Your task to perform on an android device: What's the news in the Philippines? Image 0: 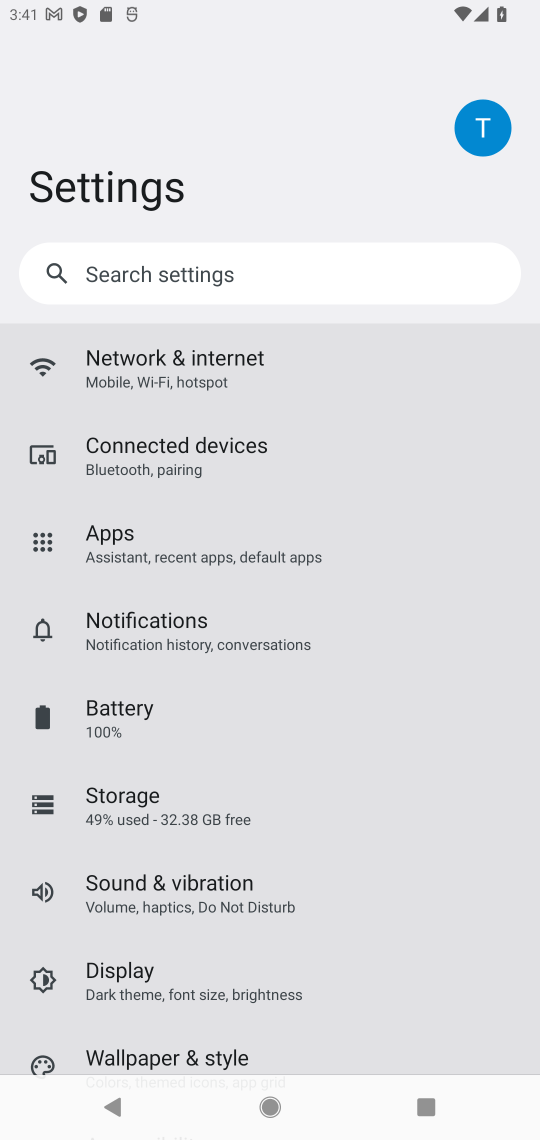
Step 0: press home button
Your task to perform on an android device: What's the news in the Philippines? Image 1: 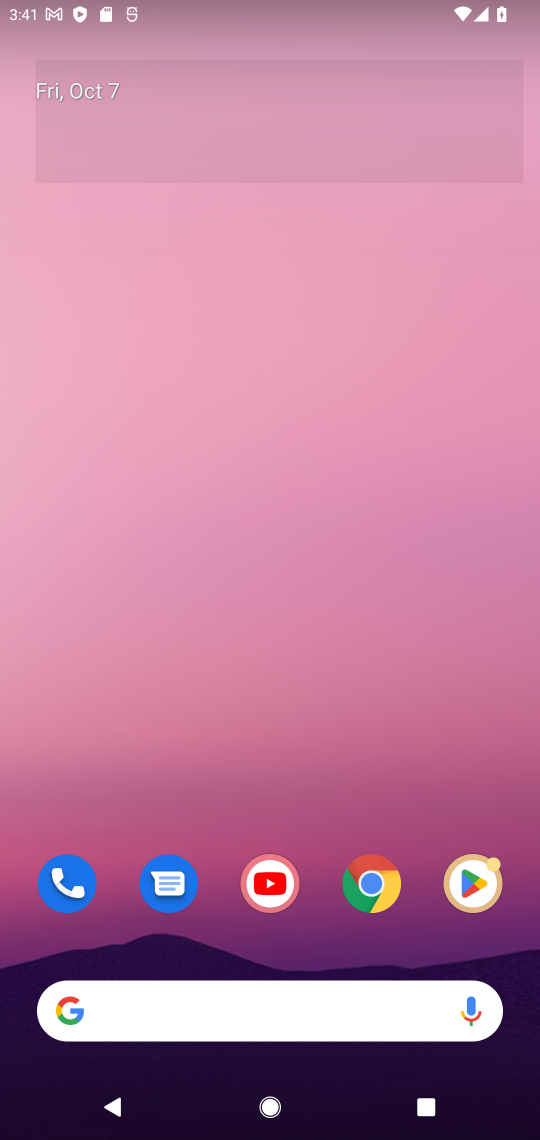
Step 1: drag from (346, 993) to (236, 217)
Your task to perform on an android device: What's the news in the Philippines? Image 2: 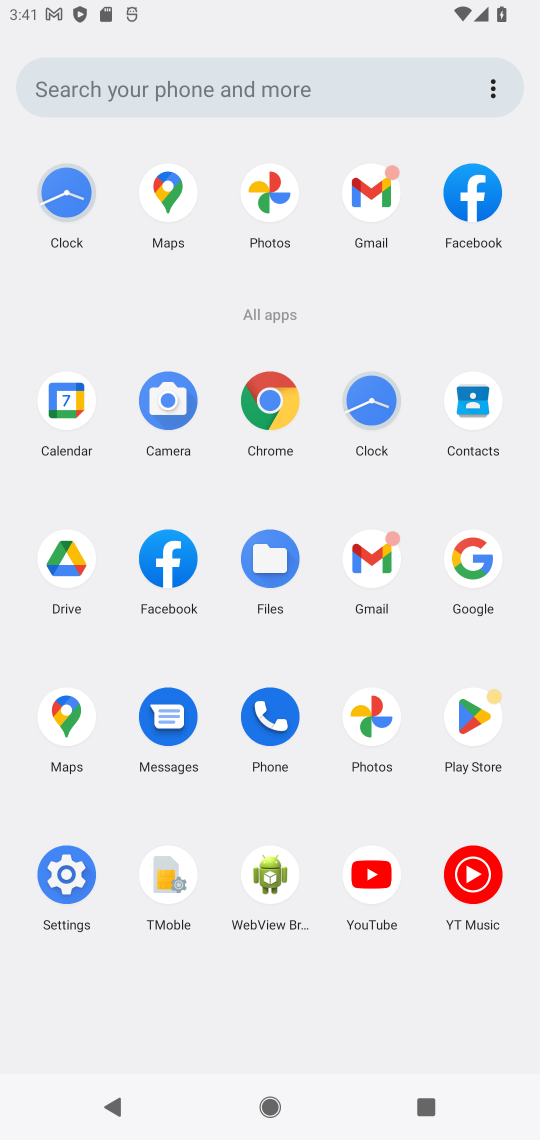
Step 2: click (283, 414)
Your task to perform on an android device: What's the news in the Philippines? Image 3: 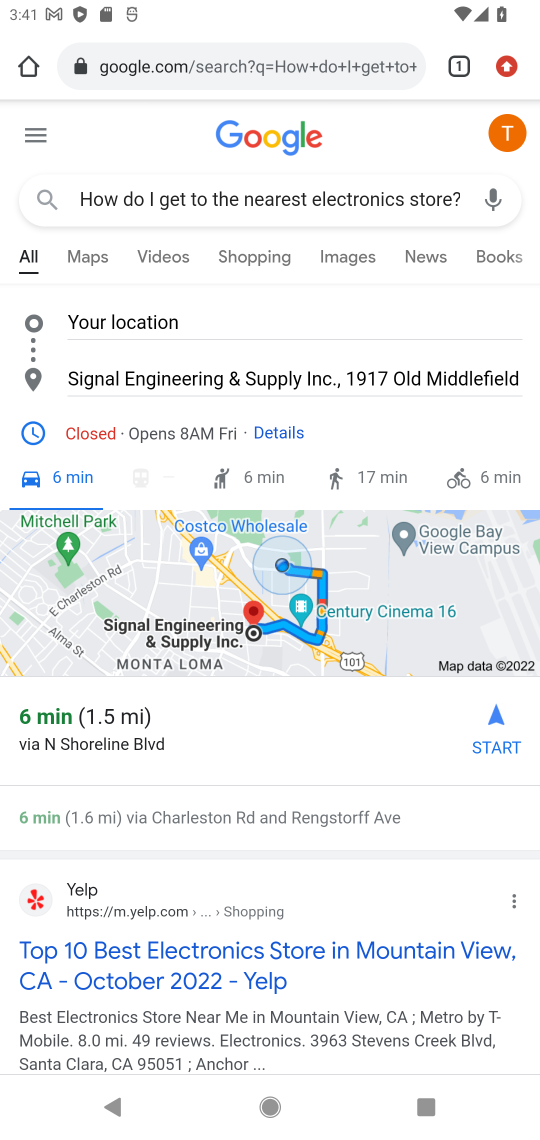
Step 3: click (279, 202)
Your task to perform on an android device: What's the news in the Philippines? Image 4: 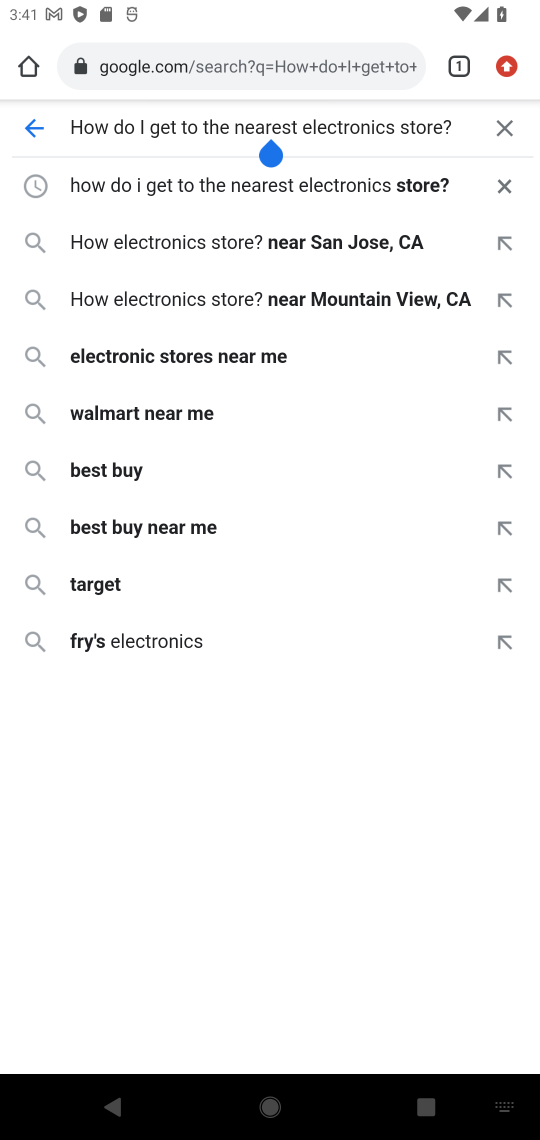
Step 4: click (499, 126)
Your task to perform on an android device: What's the news in the Philippines? Image 5: 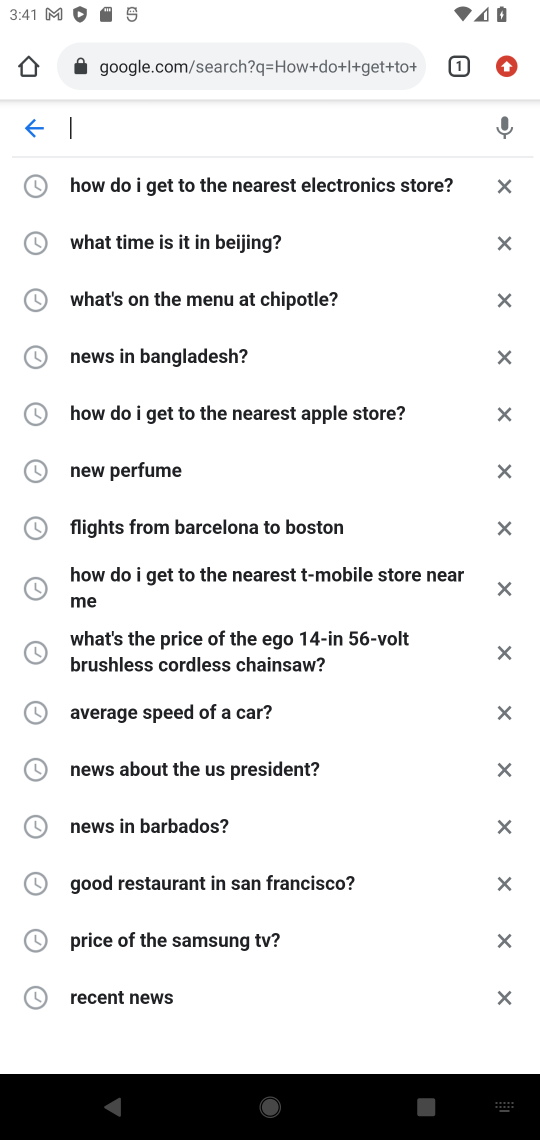
Step 5: type "news in the Philippines?"
Your task to perform on an android device: What's the news in the Philippines? Image 6: 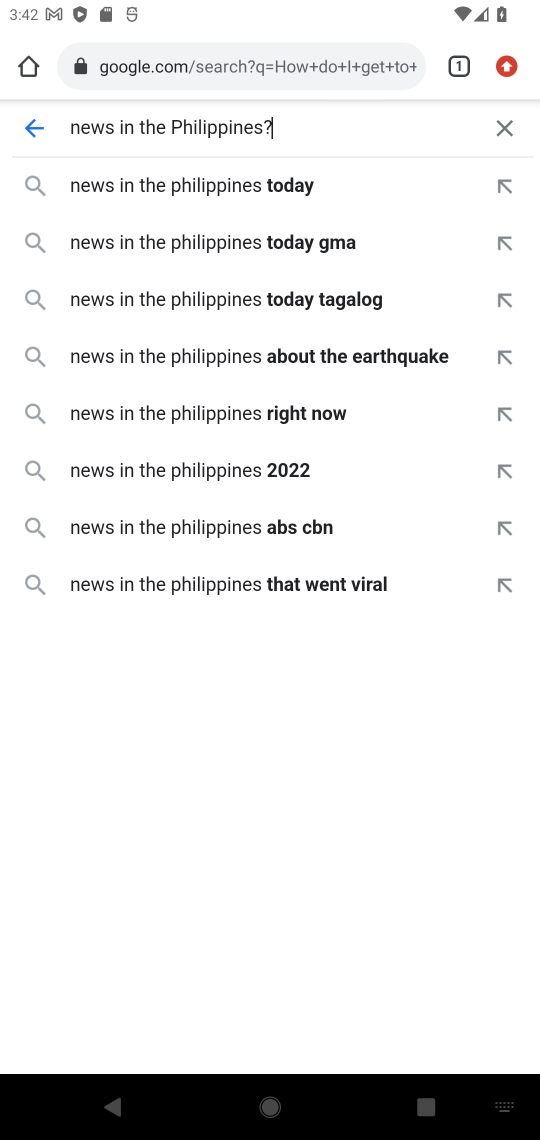
Step 6: press enter
Your task to perform on an android device: What's the news in the Philippines? Image 7: 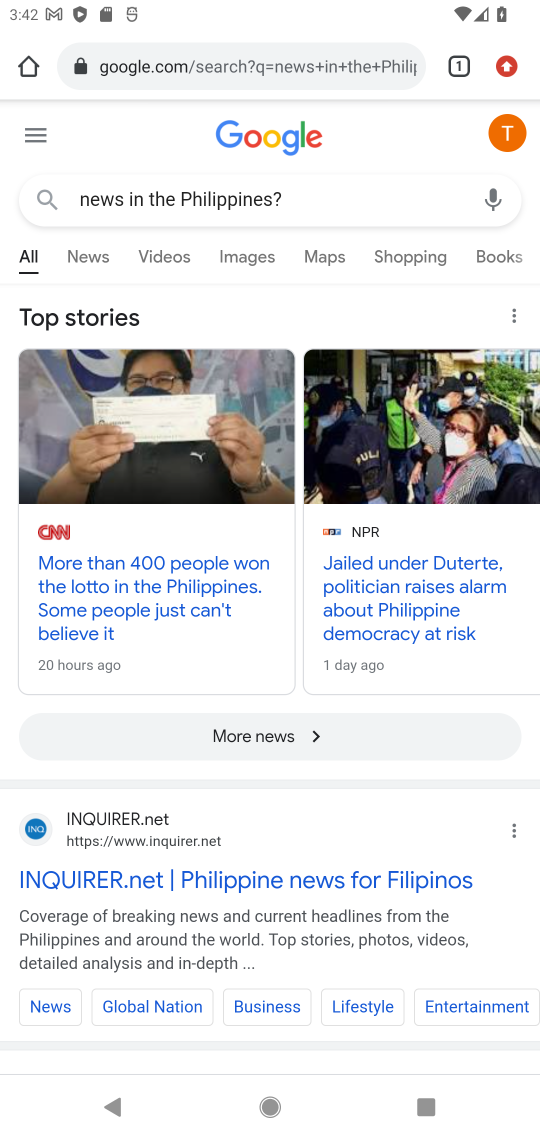
Step 7: click (97, 258)
Your task to perform on an android device: What's the news in the Philippines? Image 8: 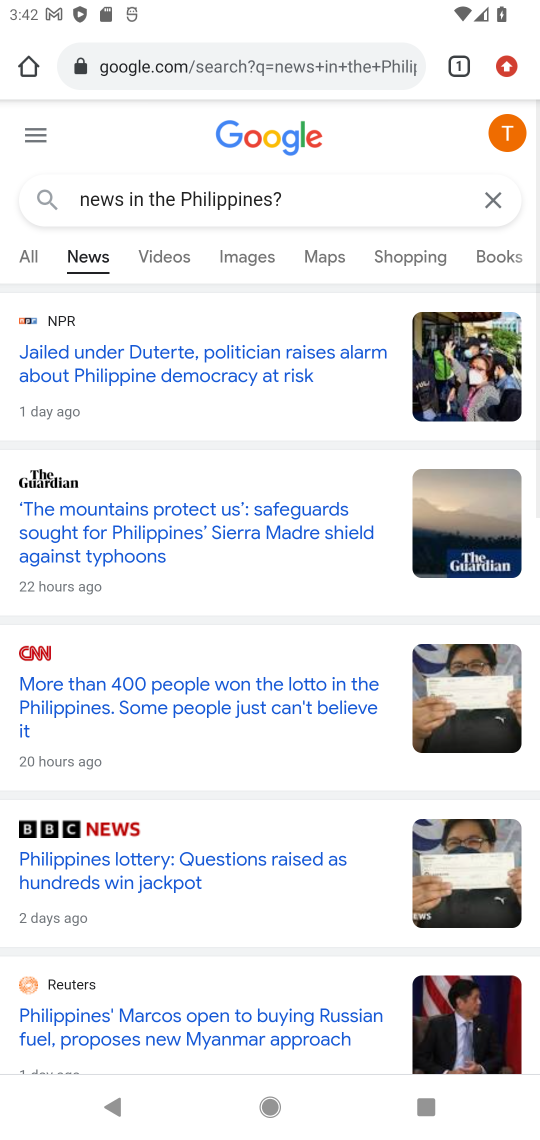
Step 8: task complete